Your task to perform on an android device: Go to Maps Image 0: 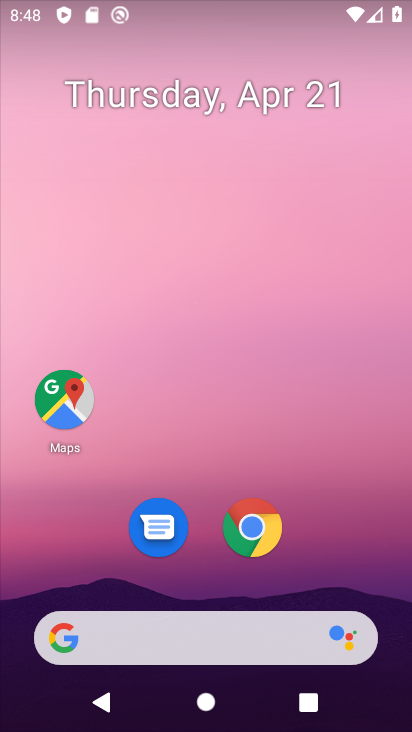
Step 0: drag from (217, 646) to (203, 145)
Your task to perform on an android device: Go to Maps Image 1: 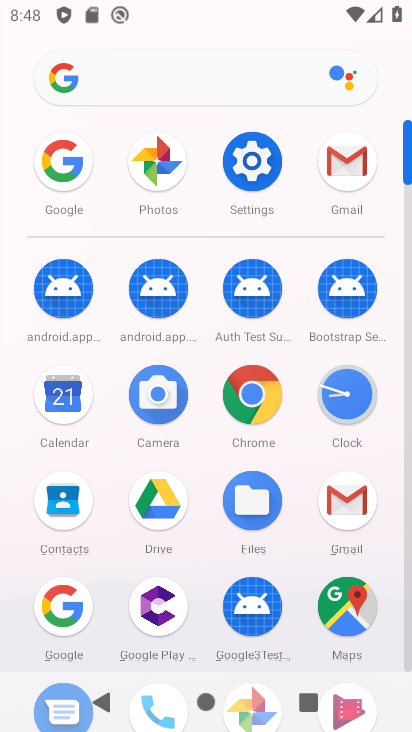
Step 1: click (344, 608)
Your task to perform on an android device: Go to Maps Image 2: 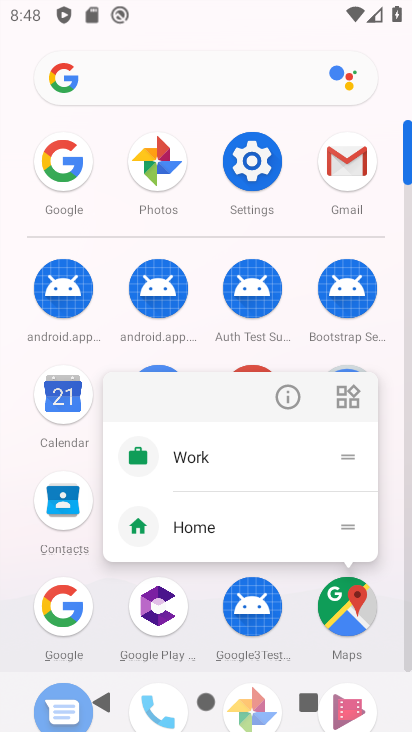
Step 2: click (344, 608)
Your task to perform on an android device: Go to Maps Image 3: 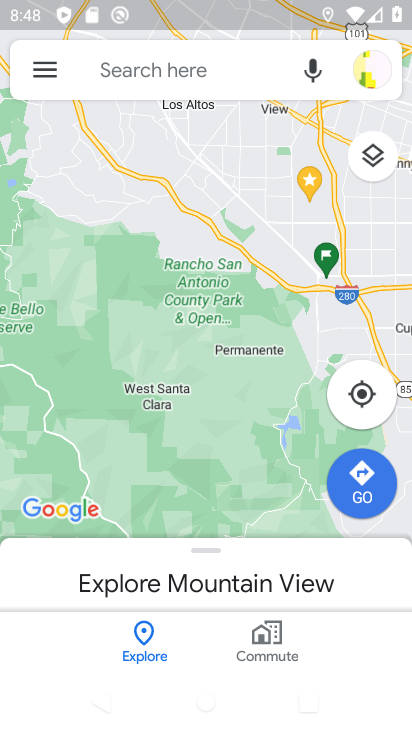
Step 3: task complete